Your task to perform on an android device: Set the phone to "Do not disturb". Image 0: 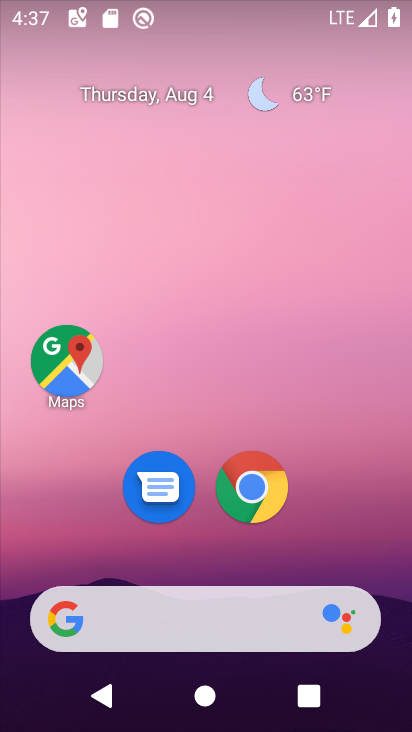
Step 0: drag from (277, 6) to (259, 530)
Your task to perform on an android device: Set the phone to "Do not disturb". Image 1: 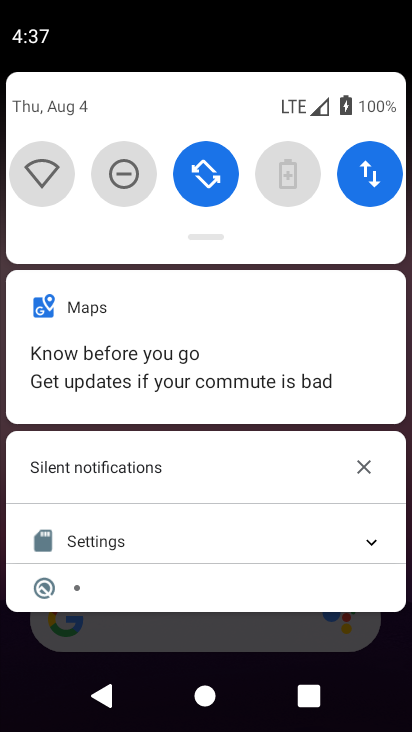
Step 1: click (131, 170)
Your task to perform on an android device: Set the phone to "Do not disturb". Image 2: 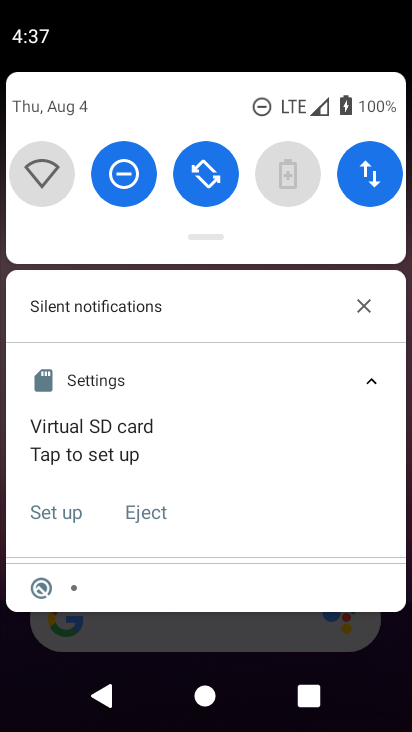
Step 2: task complete